Your task to perform on an android device: Search for Mexican restaurants on Maps Image 0: 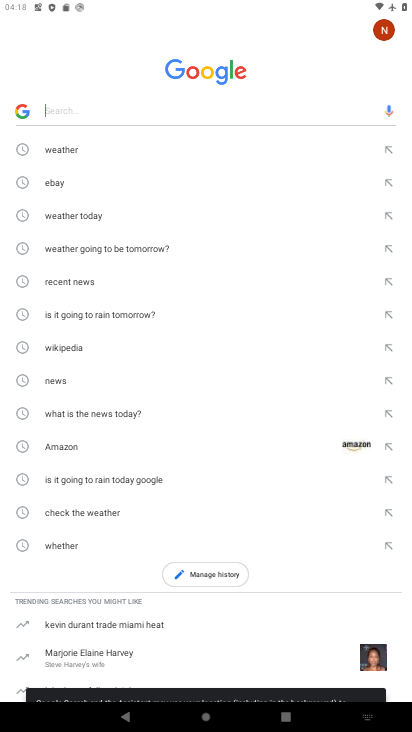
Step 0: press home button
Your task to perform on an android device: Search for Mexican restaurants on Maps Image 1: 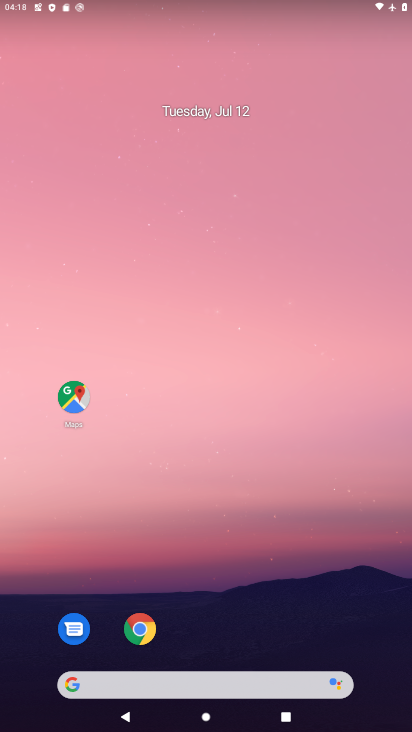
Step 1: drag from (384, 567) to (192, 59)
Your task to perform on an android device: Search for Mexican restaurants on Maps Image 2: 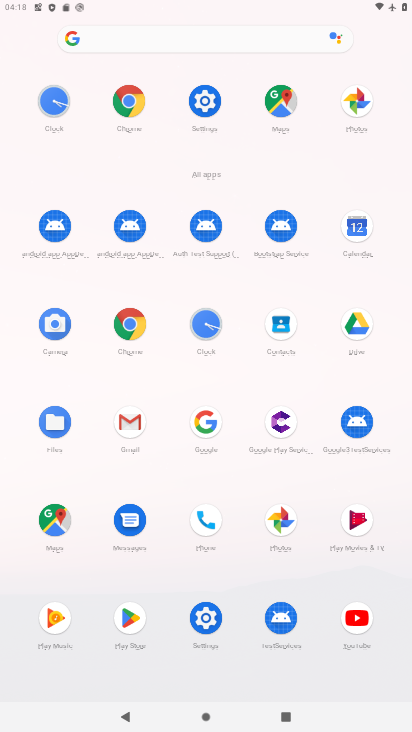
Step 2: click (49, 520)
Your task to perform on an android device: Search for Mexican restaurants on Maps Image 3: 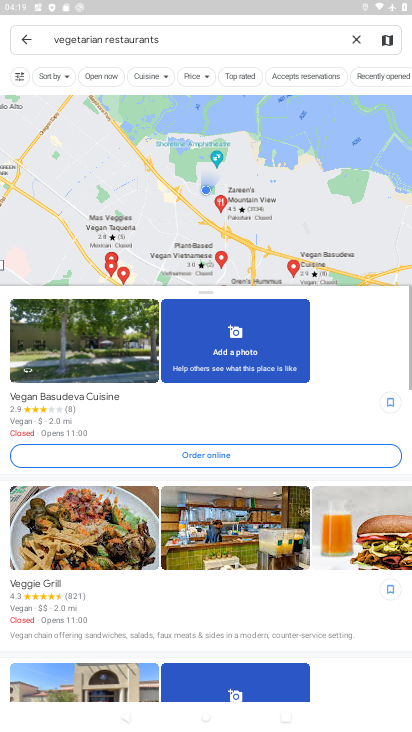
Step 3: click (291, 38)
Your task to perform on an android device: Search for Mexican restaurants on Maps Image 4: 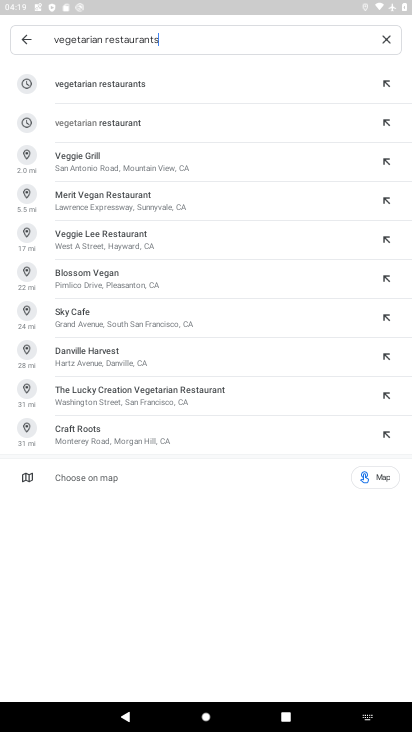
Step 4: click (385, 42)
Your task to perform on an android device: Search for Mexican restaurants on Maps Image 5: 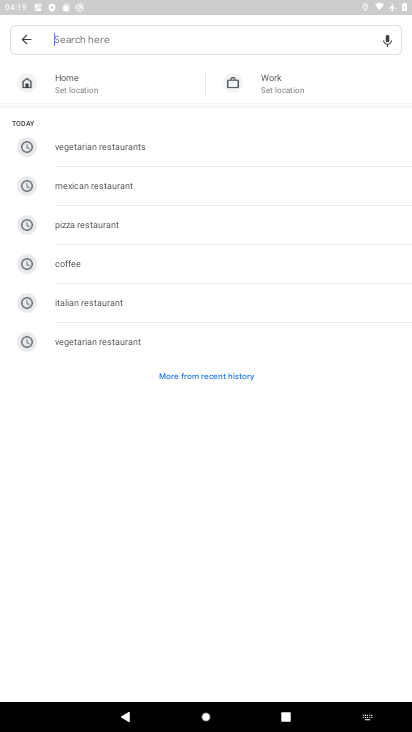
Step 5: type "Mexican restaurants"
Your task to perform on an android device: Search for Mexican restaurants on Maps Image 6: 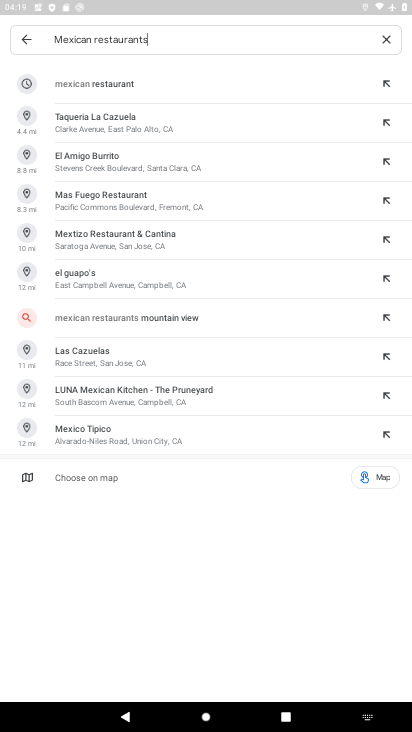
Step 6: press enter
Your task to perform on an android device: Search for Mexican restaurants on Maps Image 7: 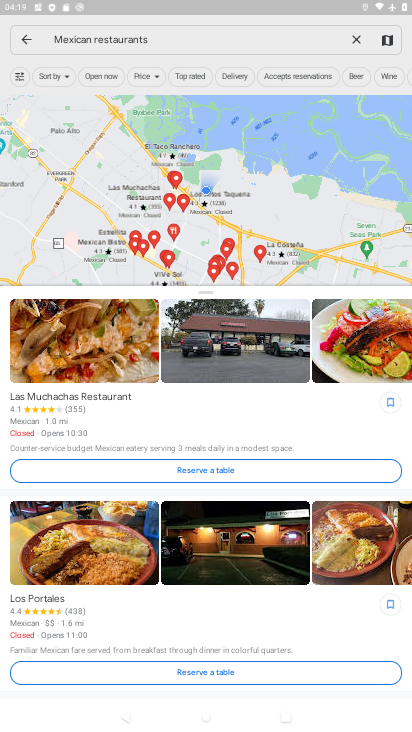
Step 7: task complete